Your task to perform on an android device: Toggle the flashlight Image 0: 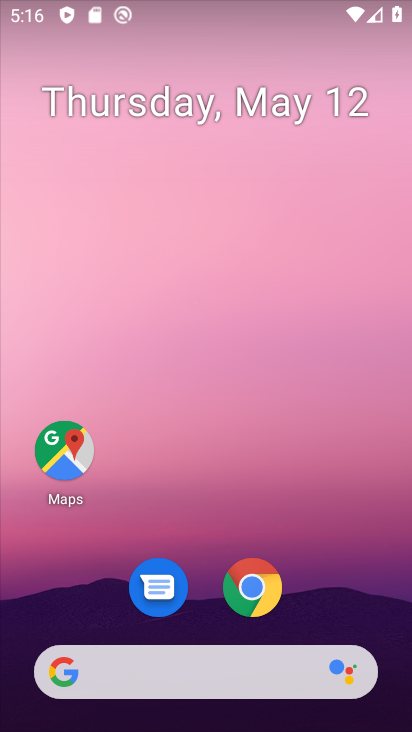
Step 0: drag from (212, 597) to (207, 200)
Your task to perform on an android device: Toggle the flashlight Image 1: 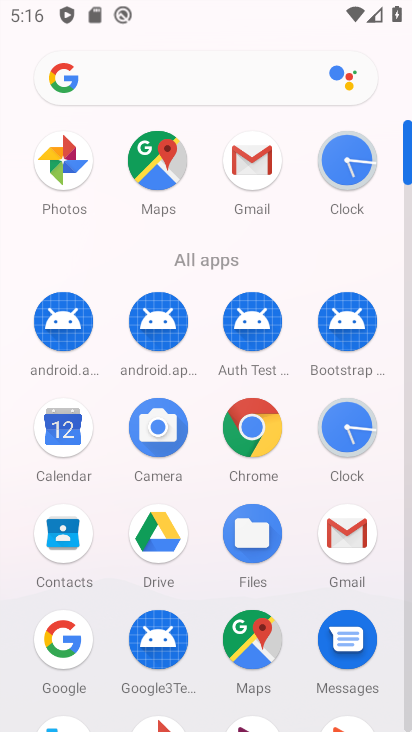
Step 1: task complete